Your task to perform on an android device: turn off javascript in the chrome app Image 0: 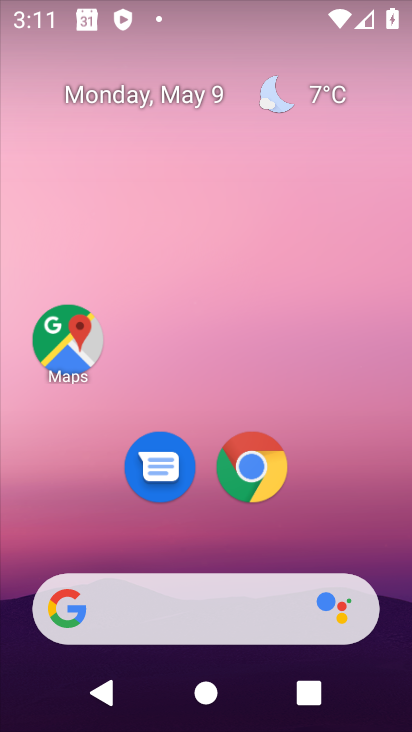
Step 0: click (254, 464)
Your task to perform on an android device: turn off javascript in the chrome app Image 1: 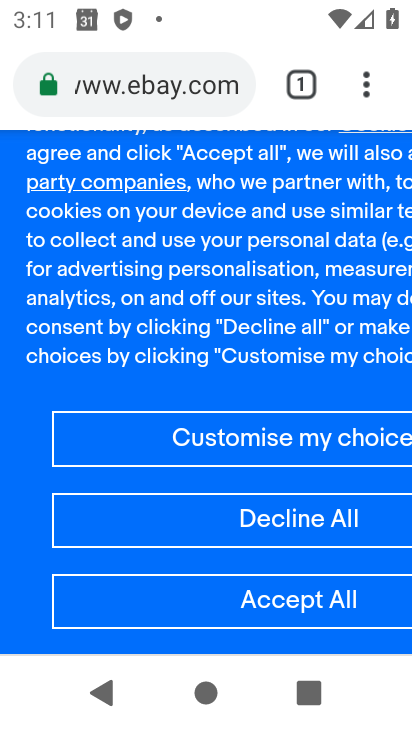
Step 1: drag from (367, 82) to (118, 501)
Your task to perform on an android device: turn off javascript in the chrome app Image 2: 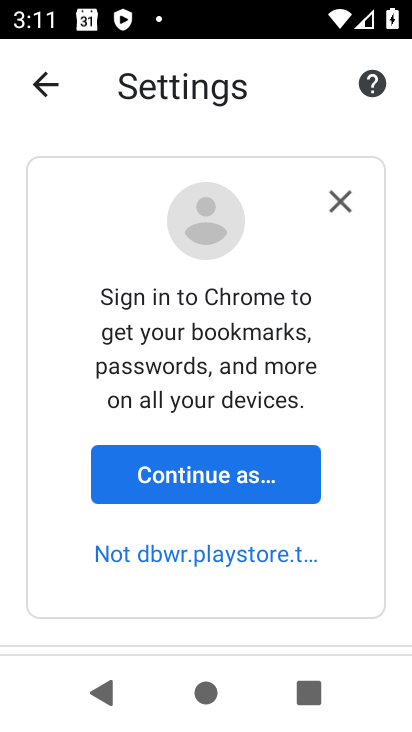
Step 2: drag from (203, 565) to (172, 191)
Your task to perform on an android device: turn off javascript in the chrome app Image 3: 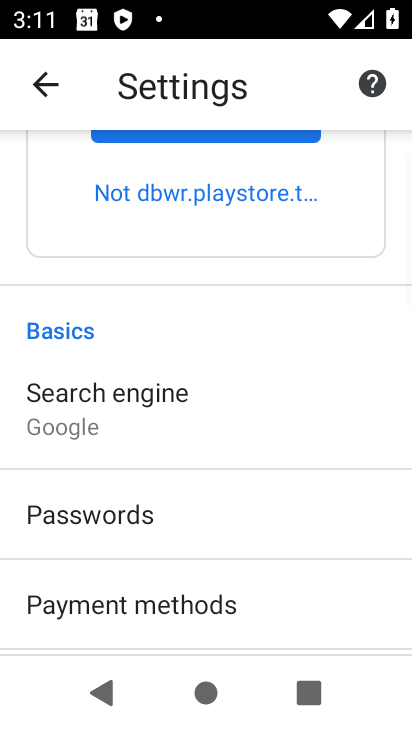
Step 3: drag from (150, 530) to (164, 98)
Your task to perform on an android device: turn off javascript in the chrome app Image 4: 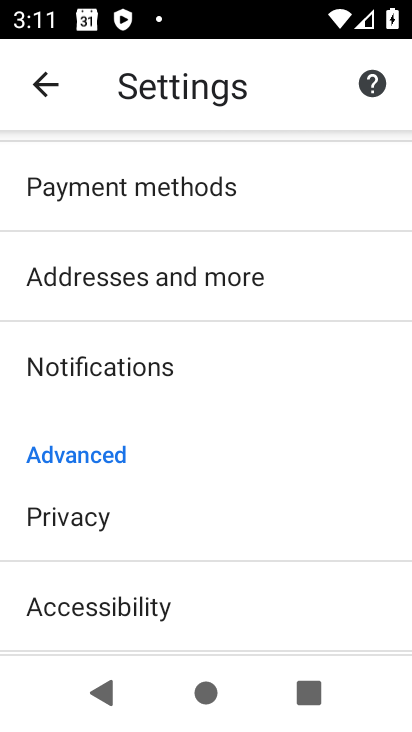
Step 4: drag from (139, 526) to (132, 203)
Your task to perform on an android device: turn off javascript in the chrome app Image 5: 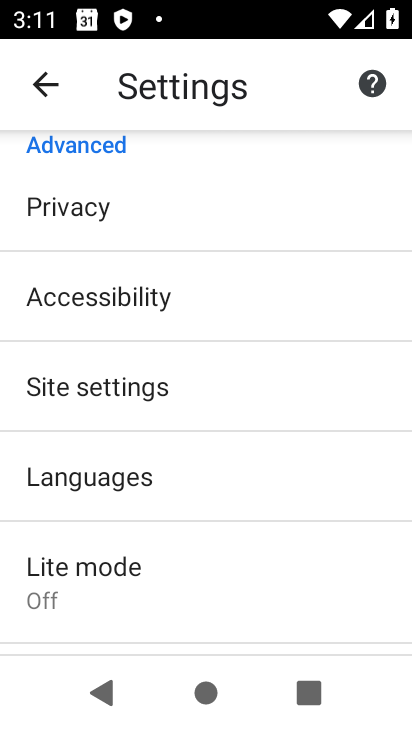
Step 5: click (102, 392)
Your task to perform on an android device: turn off javascript in the chrome app Image 6: 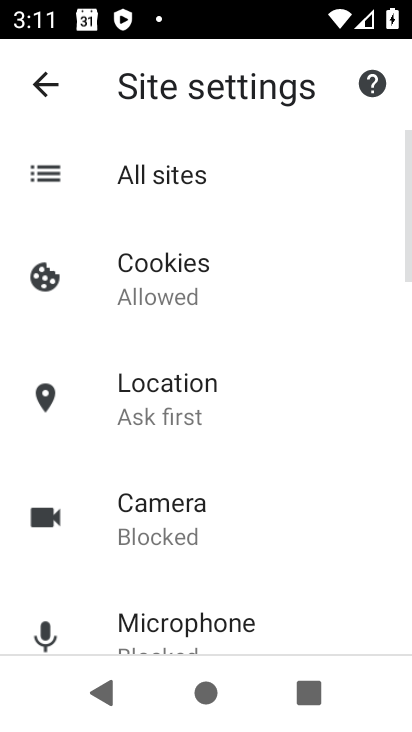
Step 6: drag from (258, 546) to (276, 303)
Your task to perform on an android device: turn off javascript in the chrome app Image 7: 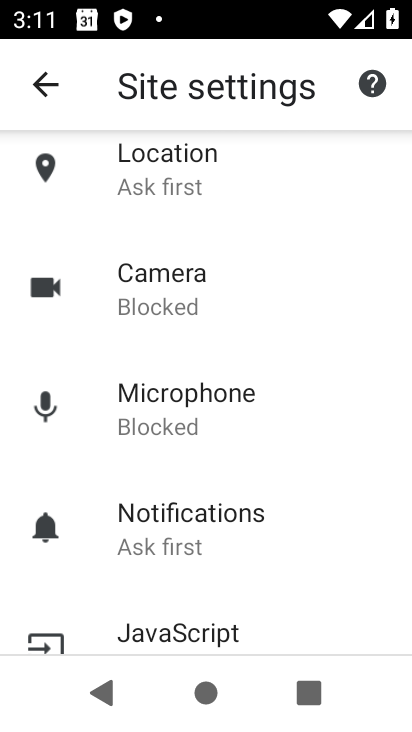
Step 7: click (174, 634)
Your task to perform on an android device: turn off javascript in the chrome app Image 8: 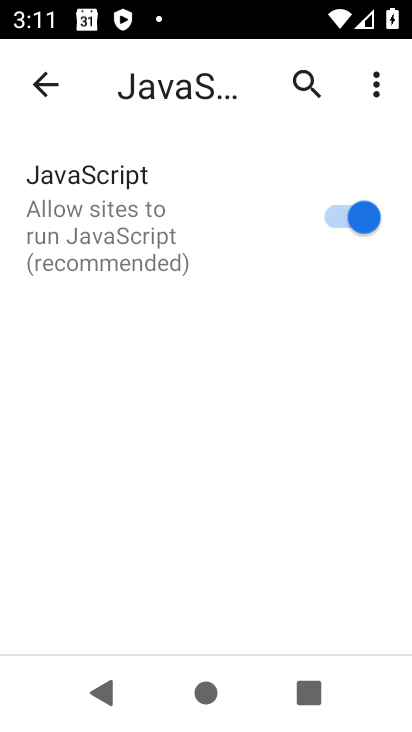
Step 8: click (352, 223)
Your task to perform on an android device: turn off javascript in the chrome app Image 9: 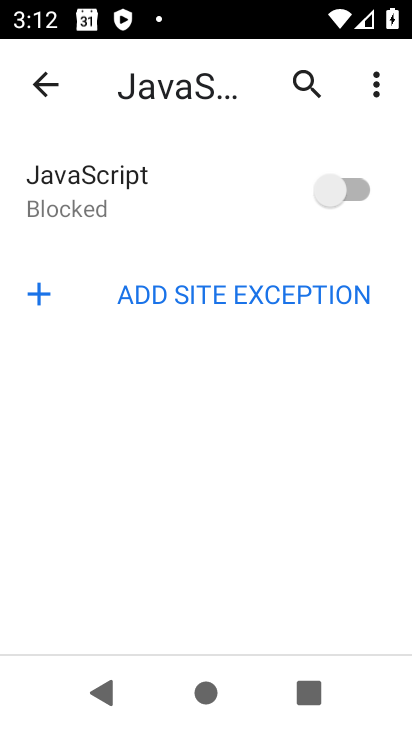
Step 9: task complete